Your task to perform on an android device: Open my contact list Image 0: 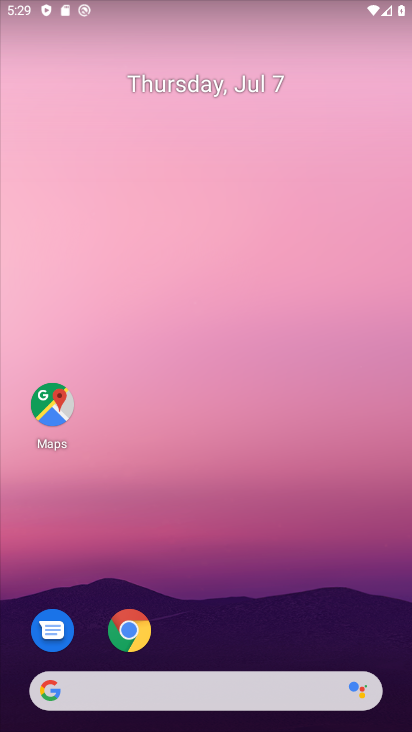
Step 0: click (206, 203)
Your task to perform on an android device: Open my contact list Image 1: 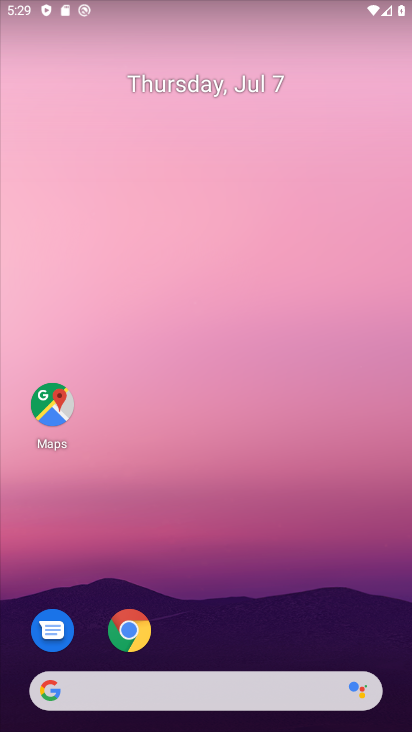
Step 1: click (204, 646)
Your task to perform on an android device: Open my contact list Image 2: 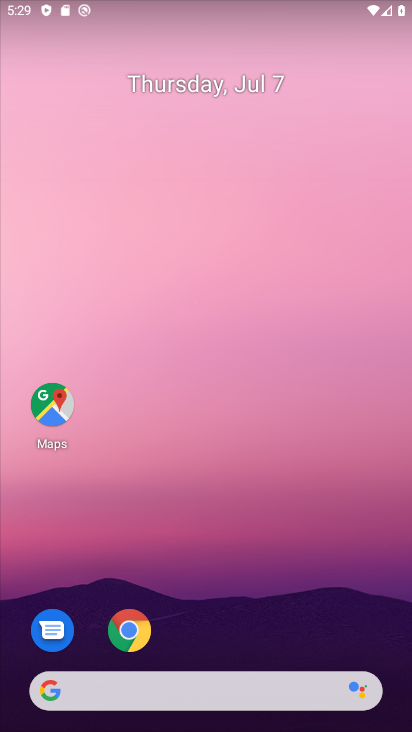
Step 2: drag from (204, 646) to (235, 529)
Your task to perform on an android device: Open my contact list Image 3: 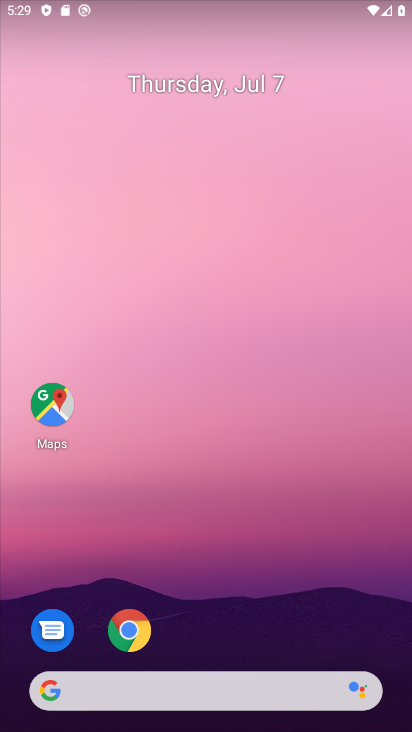
Step 3: drag from (199, 328) to (196, 149)
Your task to perform on an android device: Open my contact list Image 4: 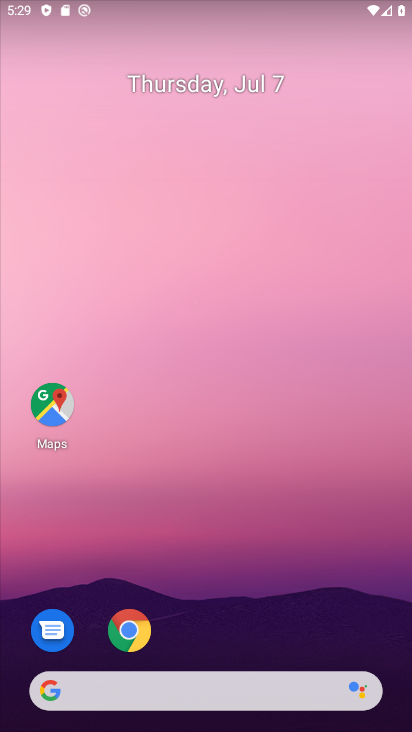
Step 4: drag from (213, 622) to (282, 75)
Your task to perform on an android device: Open my contact list Image 5: 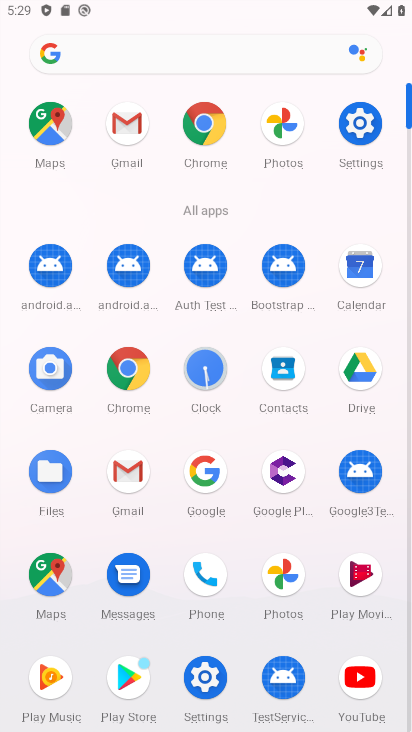
Step 5: click (289, 384)
Your task to perform on an android device: Open my contact list Image 6: 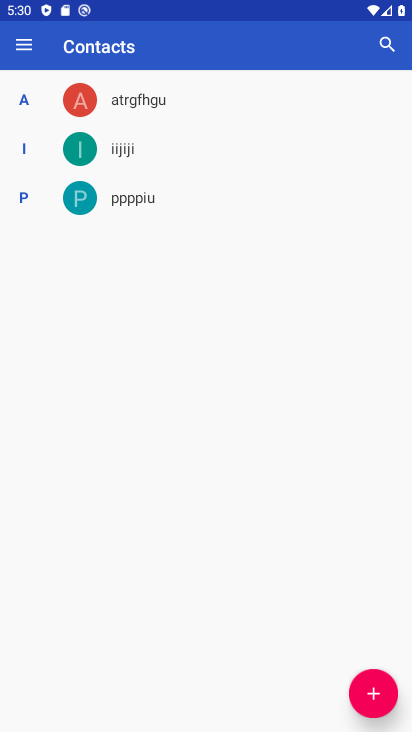
Step 6: task complete